Your task to perform on an android device: What's on my calendar today? Image 0: 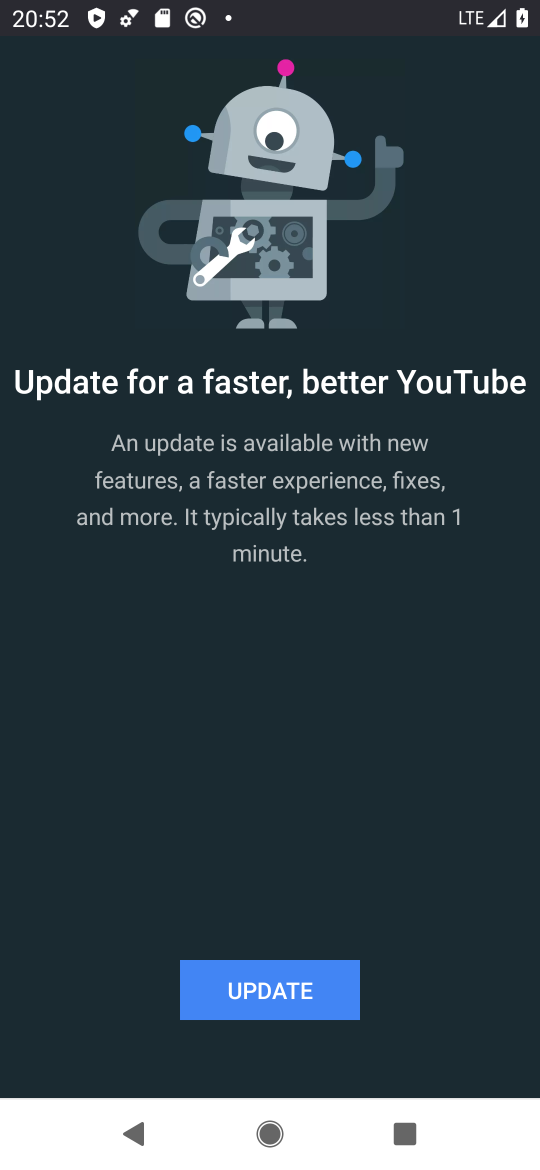
Step 0: press back button
Your task to perform on an android device: What's on my calendar today? Image 1: 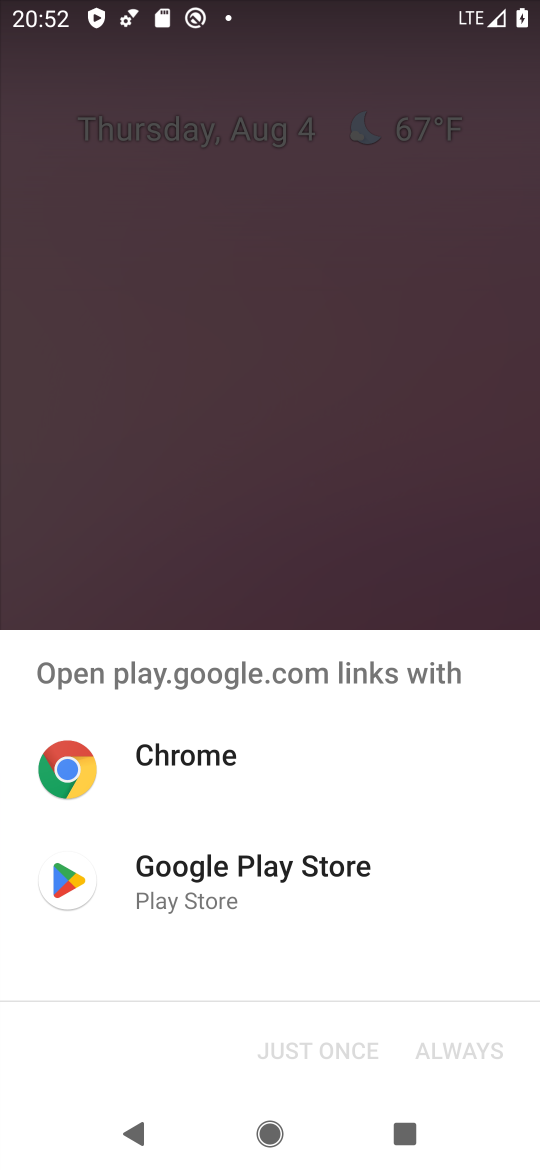
Step 1: press back button
Your task to perform on an android device: What's on my calendar today? Image 2: 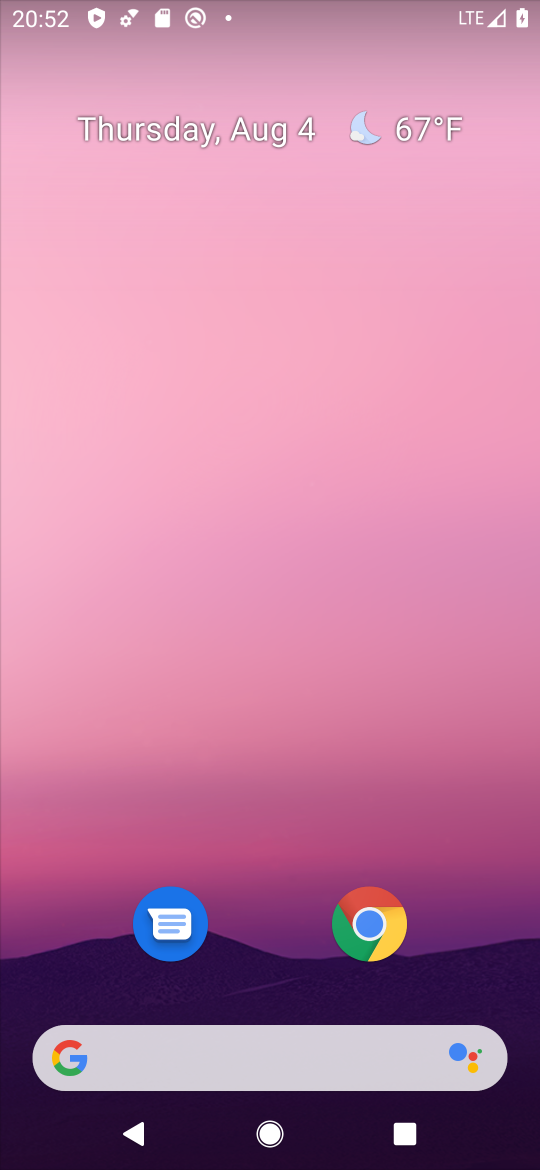
Step 2: drag from (293, 992) to (234, 49)
Your task to perform on an android device: What's on my calendar today? Image 3: 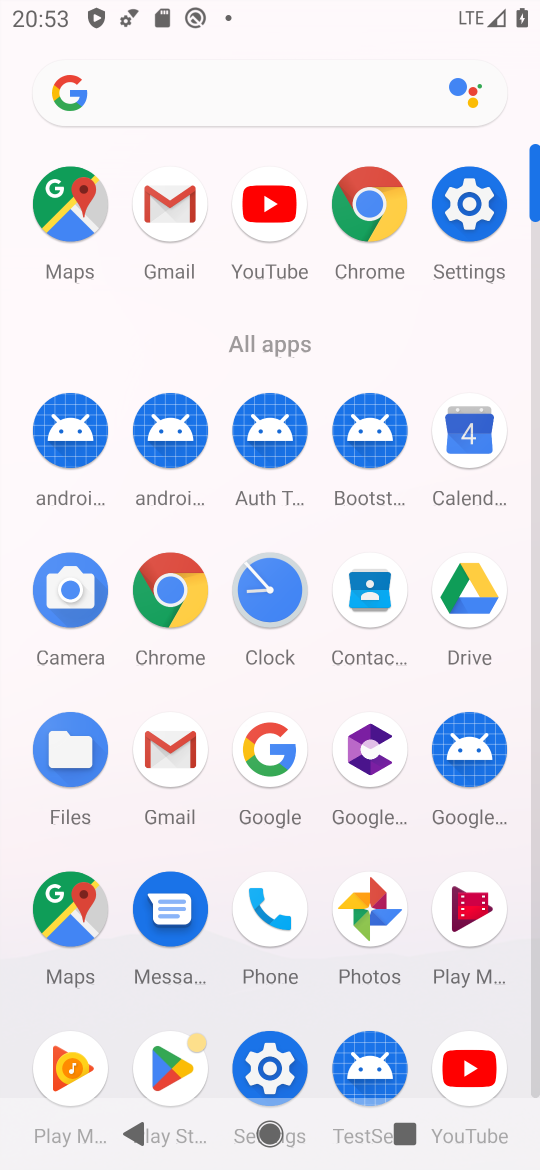
Step 3: click (451, 456)
Your task to perform on an android device: What's on my calendar today? Image 4: 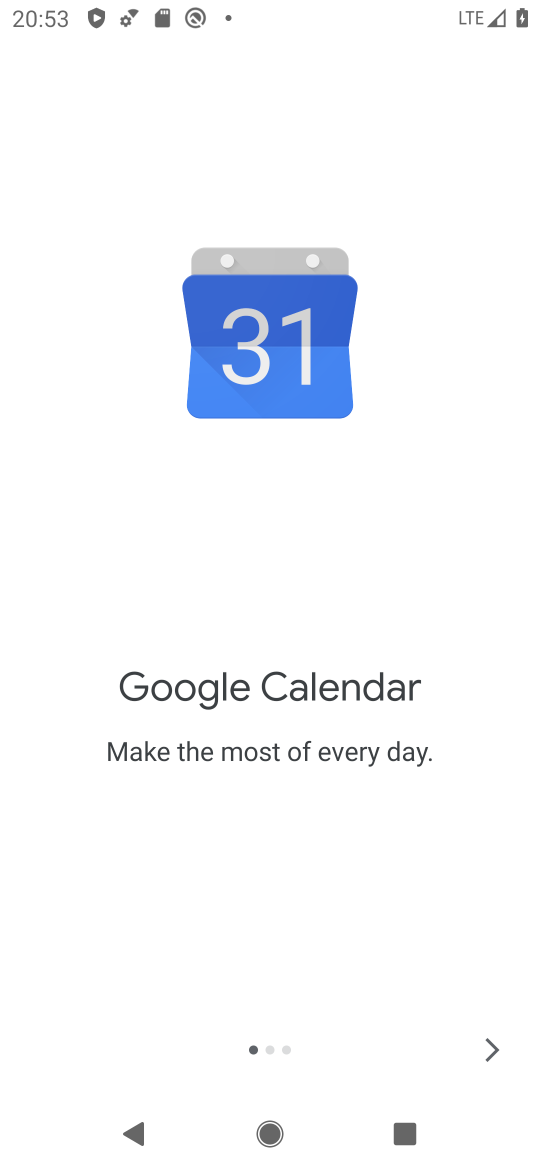
Step 4: click (501, 1043)
Your task to perform on an android device: What's on my calendar today? Image 5: 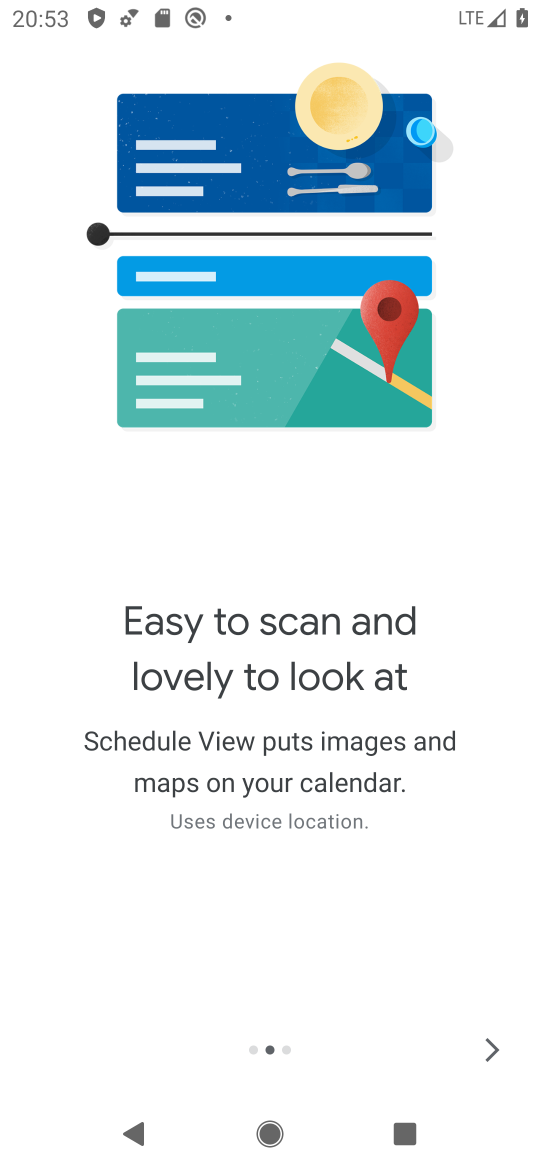
Step 5: click (504, 1050)
Your task to perform on an android device: What's on my calendar today? Image 6: 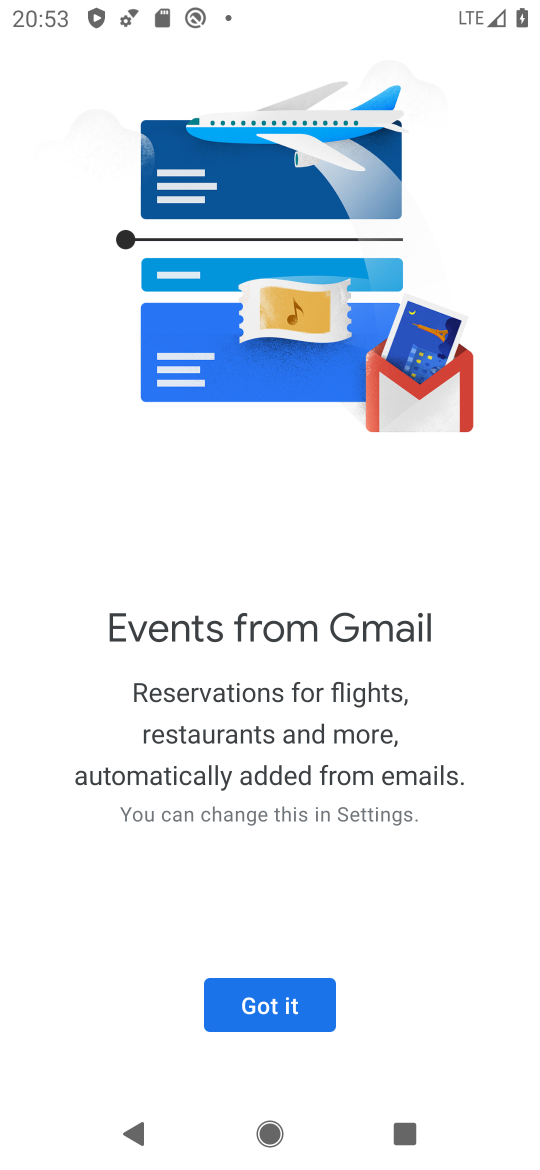
Step 6: click (299, 1003)
Your task to perform on an android device: What's on my calendar today? Image 7: 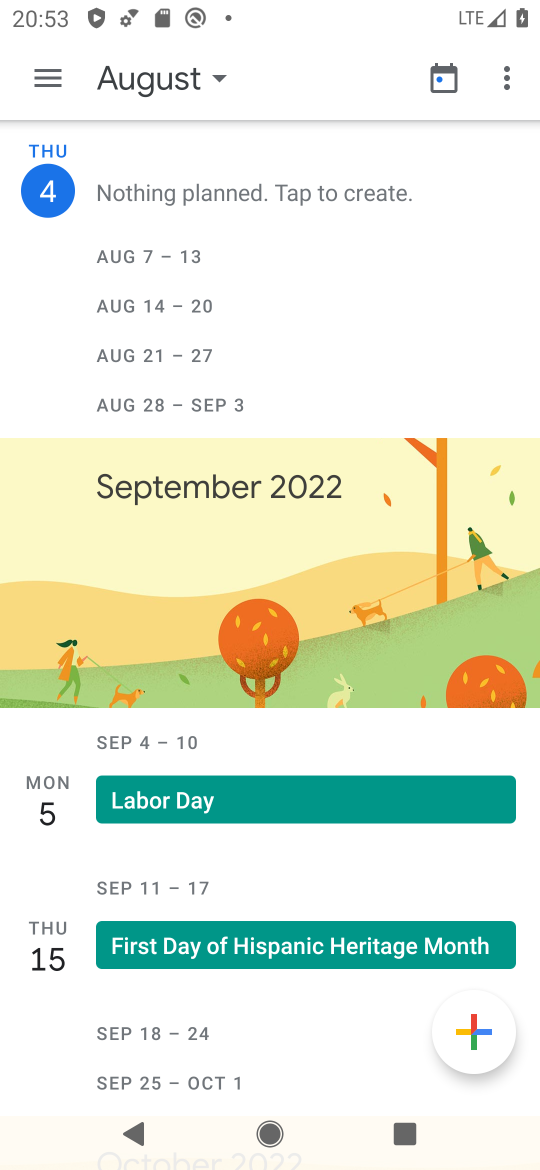
Step 7: click (43, 184)
Your task to perform on an android device: What's on my calendar today? Image 8: 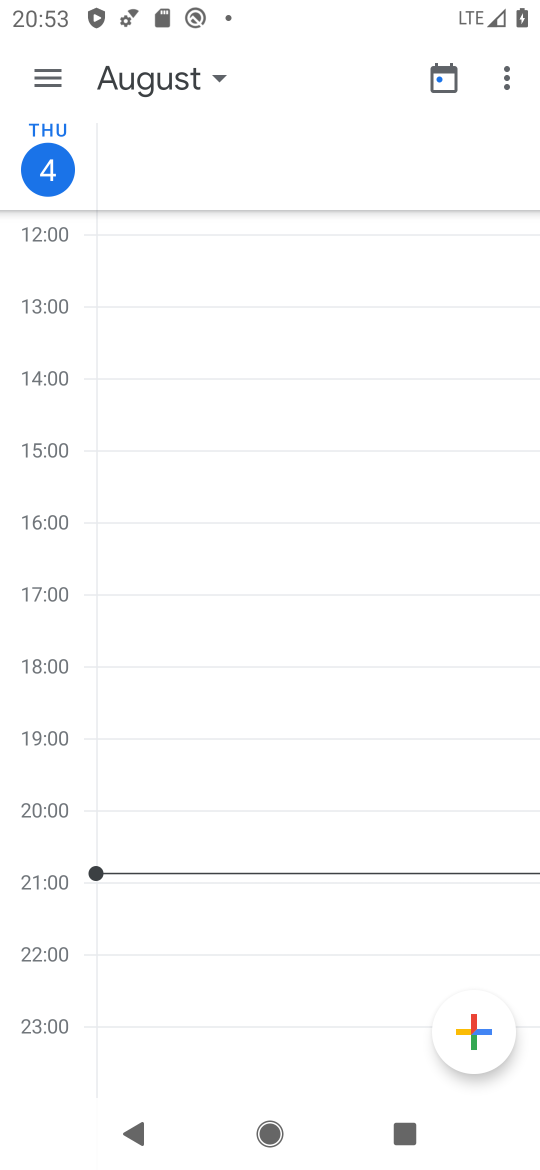
Step 8: task complete